Your task to perform on an android device: toggle data saver in the chrome app Image 0: 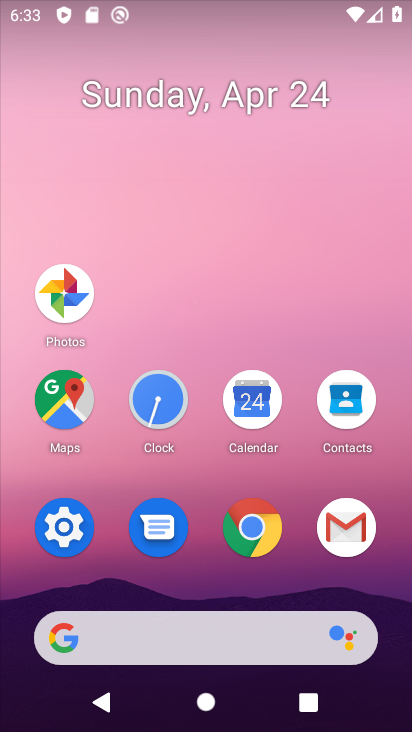
Step 0: click (247, 533)
Your task to perform on an android device: toggle data saver in the chrome app Image 1: 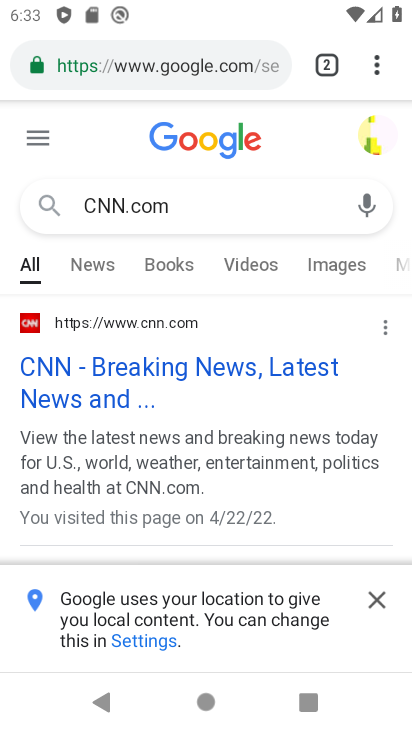
Step 1: click (378, 60)
Your task to perform on an android device: toggle data saver in the chrome app Image 2: 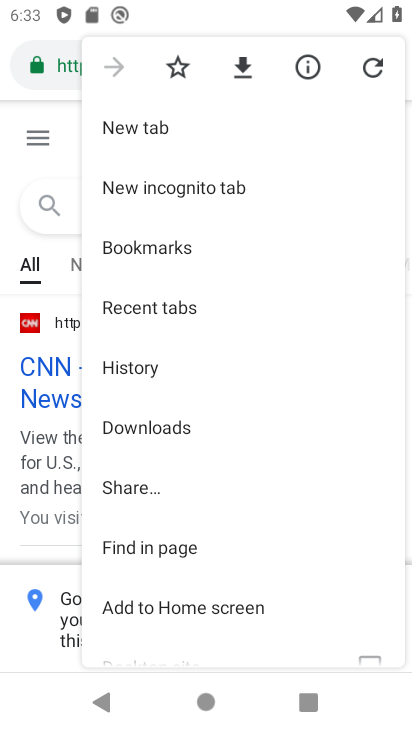
Step 2: drag from (235, 533) to (130, 14)
Your task to perform on an android device: toggle data saver in the chrome app Image 3: 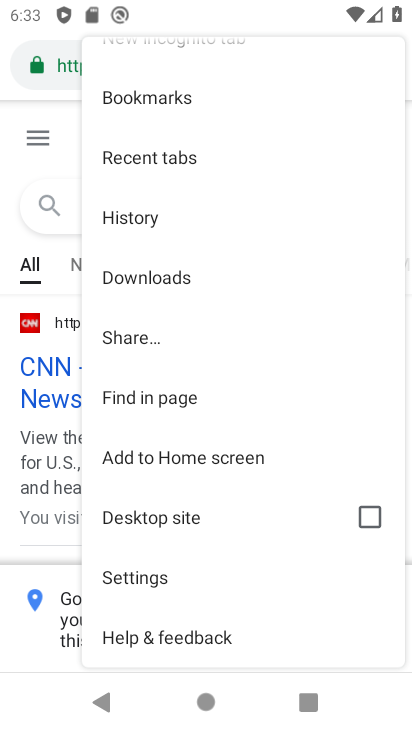
Step 3: click (138, 571)
Your task to perform on an android device: toggle data saver in the chrome app Image 4: 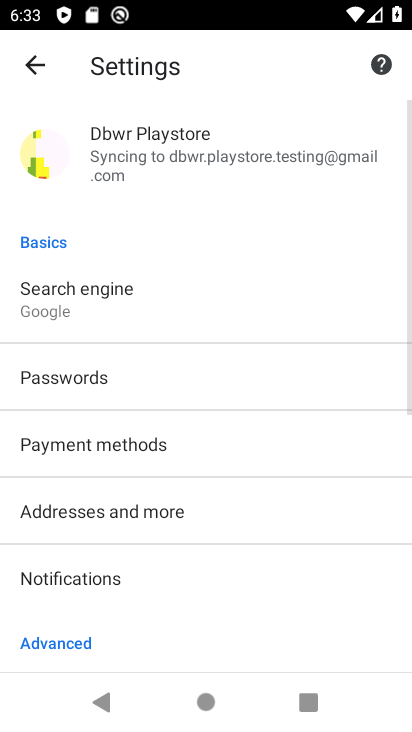
Step 4: drag from (150, 551) to (93, 120)
Your task to perform on an android device: toggle data saver in the chrome app Image 5: 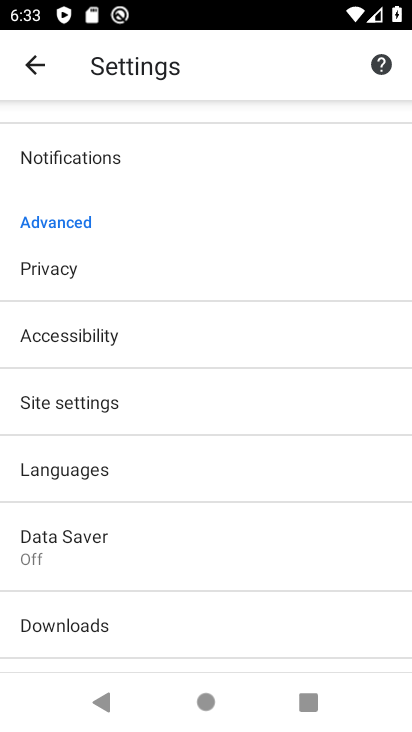
Step 5: click (83, 537)
Your task to perform on an android device: toggle data saver in the chrome app Image 6: 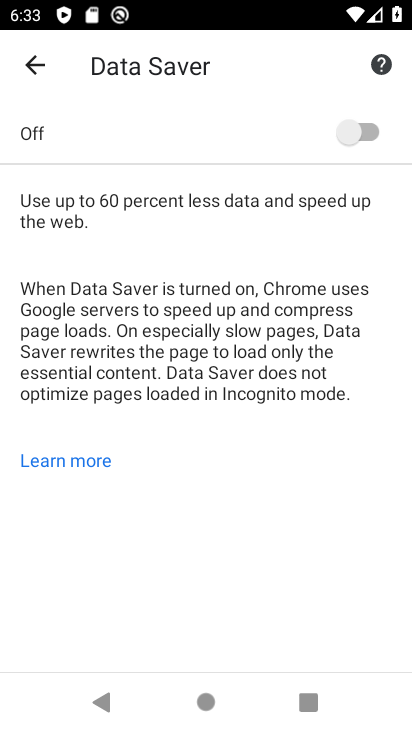
Step 6: click (356, 135)
Your task to perform on an android device: toggle data saver in the chrome app Image 7: 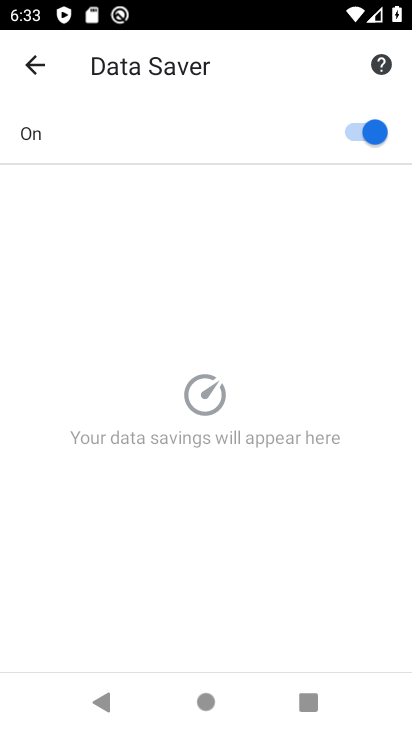
Step 7: task complete